Your task to perform on an android device: What's the weather going to be this weekend? Image 0: 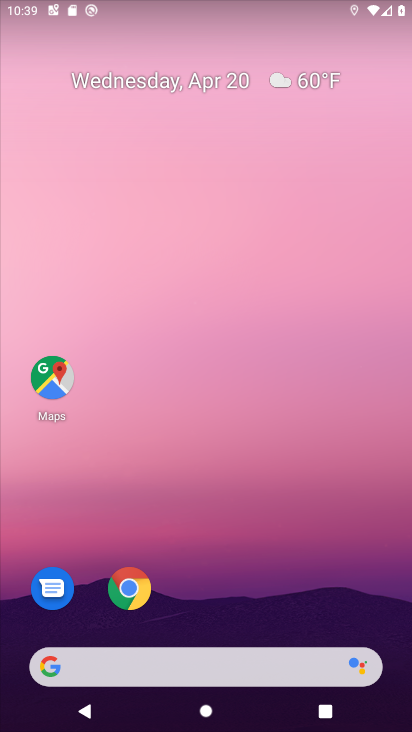
Step 0: click (284, 79)
Your task to perform on an android device: What's the weather going to be this weekend? Image 1: 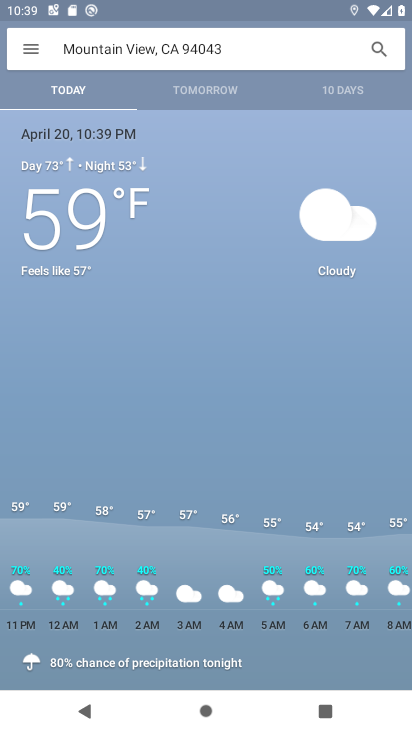
Step 1: click (342, 88)
Your task to perform on an android device: What's the weather going to be this weekend? Image 2: 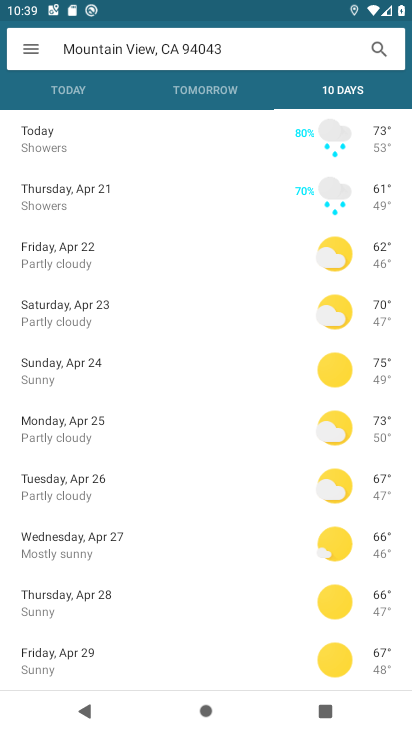
Step 2: task complete